Your task to perform on an android device: turn off wifi Image 0: 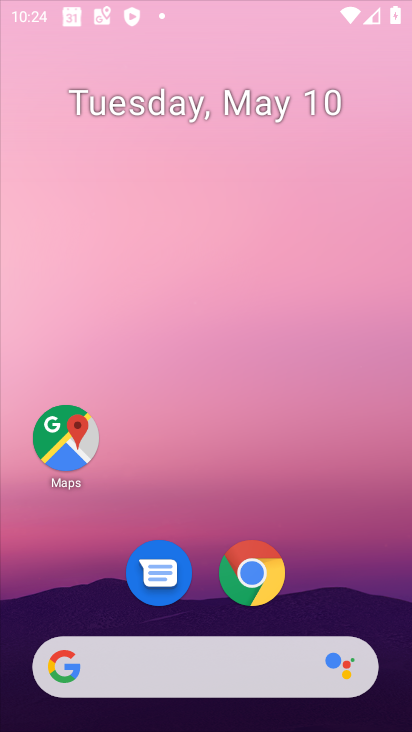
Step 0: click (213, 169)
Your task to perform on an android device: turn off wifi Image 1: 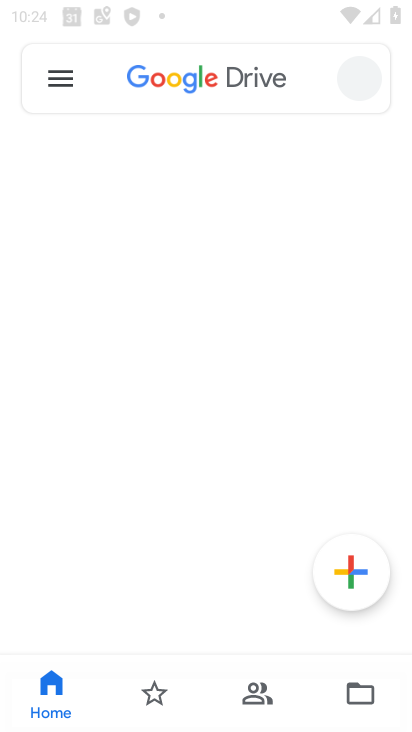
Step 1: drag from (309, 528) to (220, 65)
Your task to perform on an android device: turn off wifi Image 2: 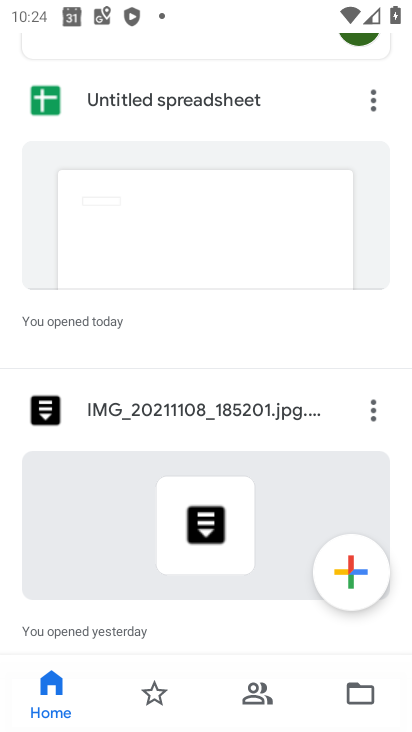
Step 2: press home button
Your task to perform on an android device: turn off wifi Image 3: 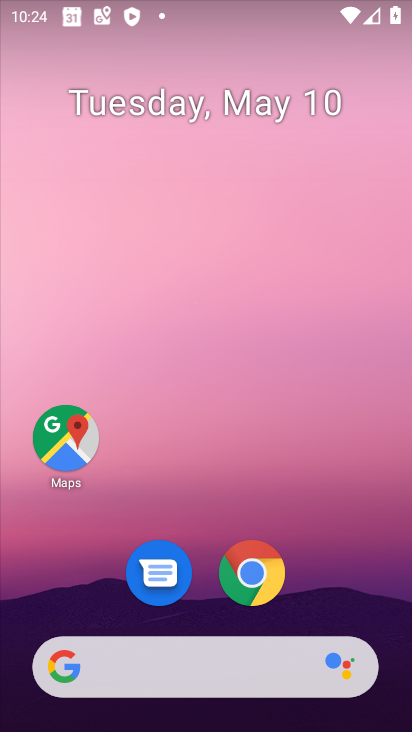
Step 3: drag from (183, 497) to (145, 8)
Your task to perform on an android device: turn off wifi Image 4: 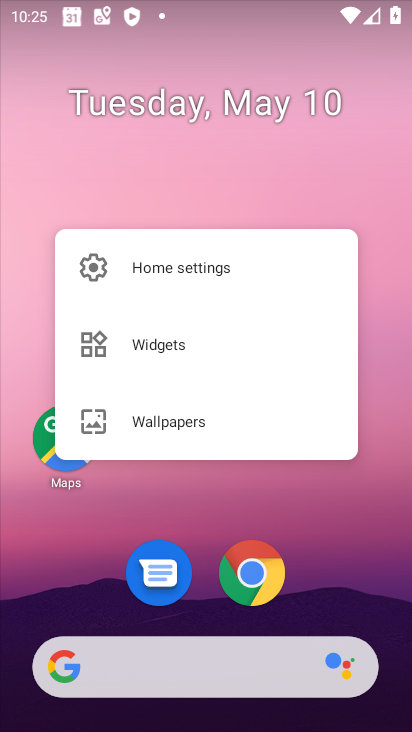
Step 4: click (254, 466)
Your task to perform on an android device: turn off wifi Image 5: 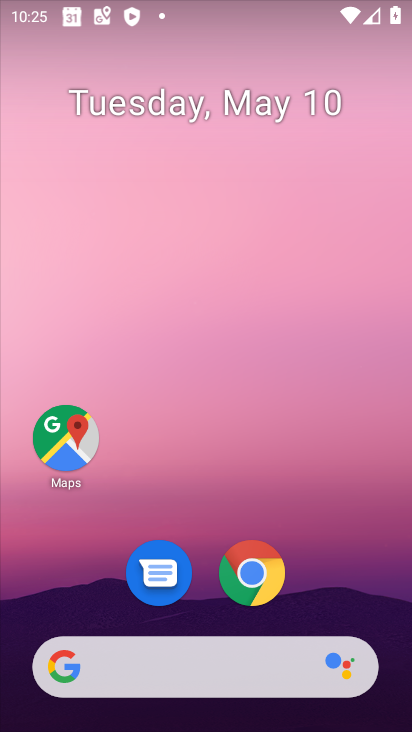
Step 5: drag from (335, 562) to (228, 2)
Your task to perform on an android device: turn off wifi Image 6: 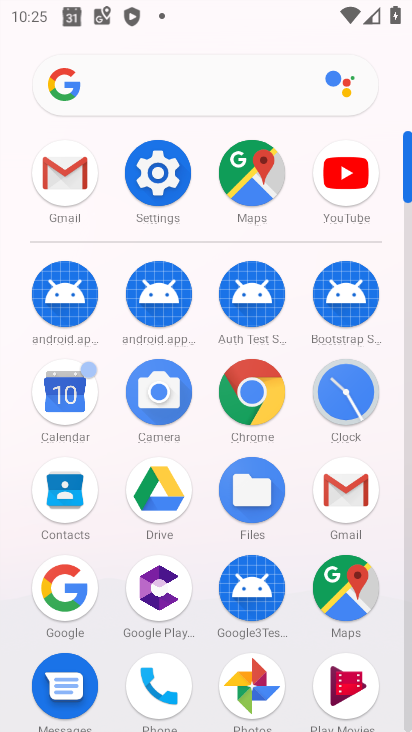
Step 6: click (157, 174)
Your task to perform on an android device: turn off wifi Image 7: 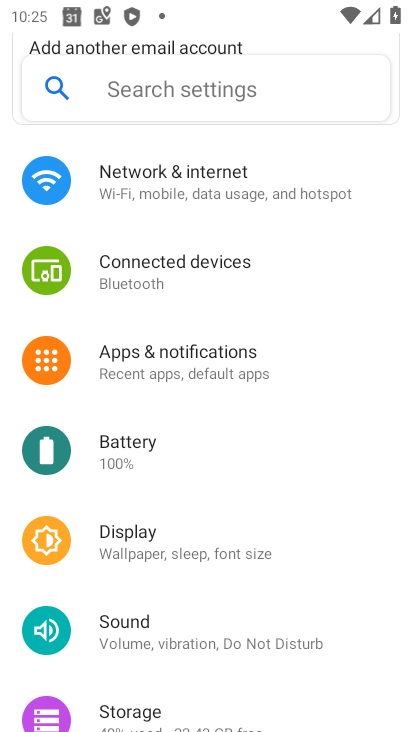
Step 7: click (158, 174)
Your task to perform on an android device: turn off wifi Image 8: 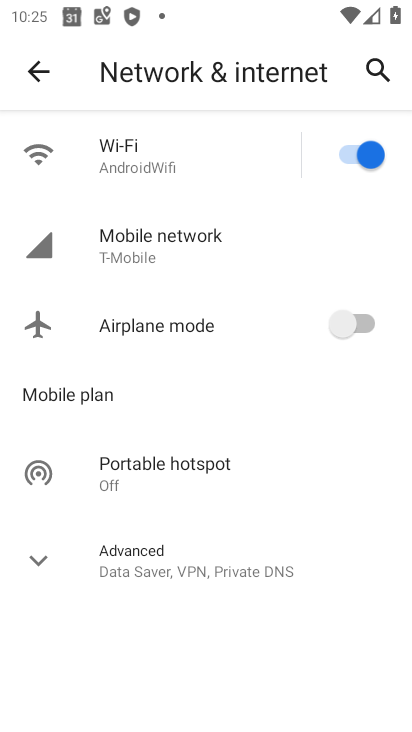
Step 8: click (371, 157)
Your task to perform on an android device: turn off wifi Image 9: 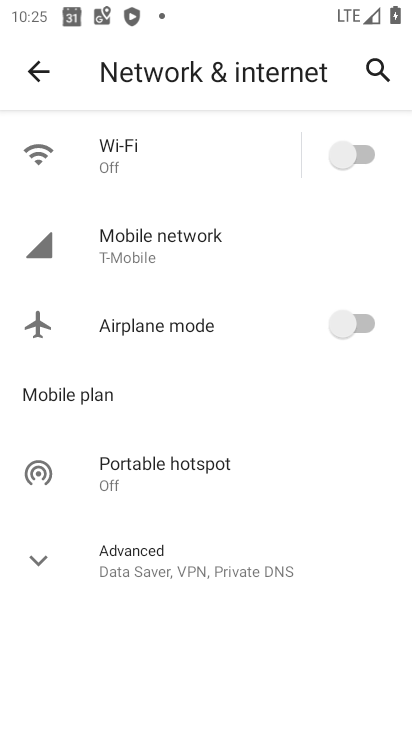
Step 9: task complete